Your task to perform on an android device: Go to wifi settings Image 0: 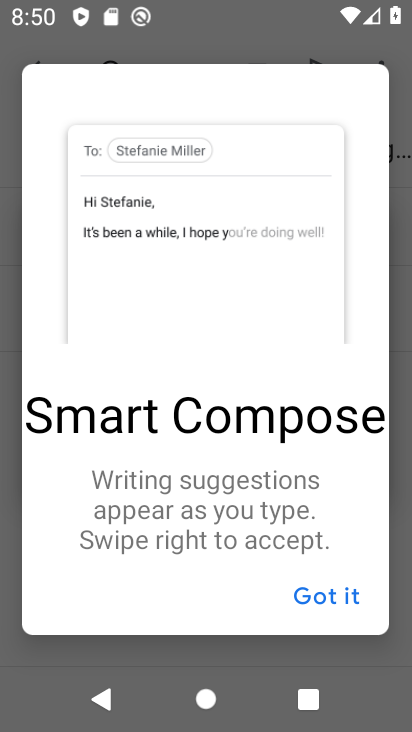
Step 0: press home button
Your task to perform on an android device: Go to wifi settings Image 1: 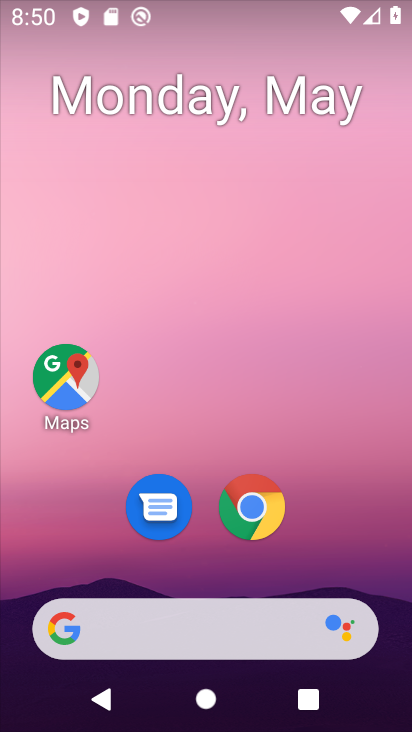
Step 1: drag from (225, 575) to (250, 4)
Your task to perform on an android device: Go to wifi settings Image 2: 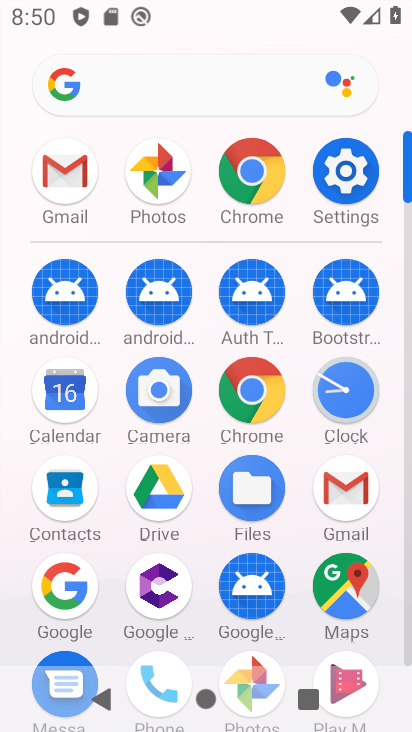
Step 2: click (355, 196)
Your task to perform on an android device: Go to wifi settings Image 3: 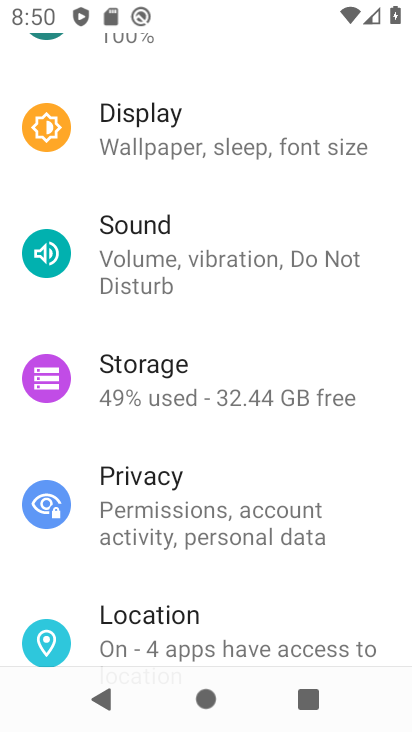
Step 3: drag from (243, 362) to (212, 702)
Your task to perform on an android device: Go to wifi settings Image 4: 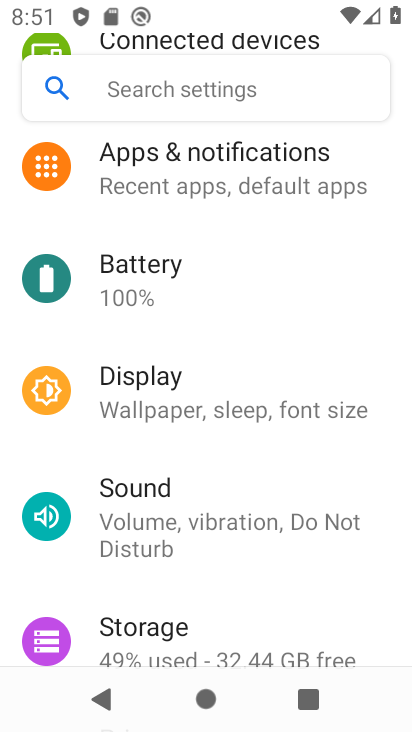
Step 4: drag from (297, 199) to (264, 707)
Your task to perform on an android device: Go to wifi settings Image 5: 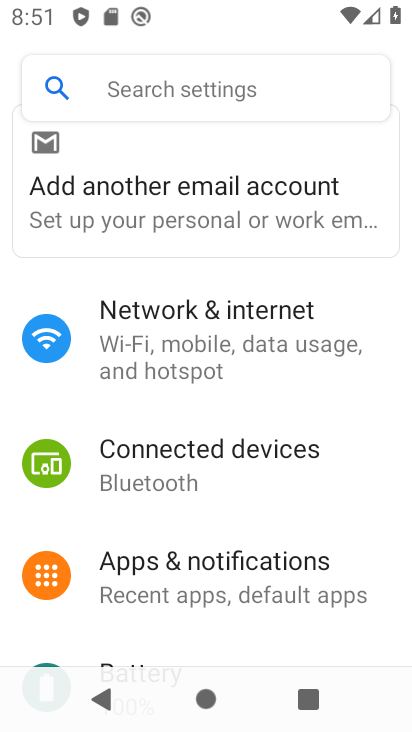
Step 5: click (235, 331)
Your task to perform on an android device: Go to wifi settings Image 6: 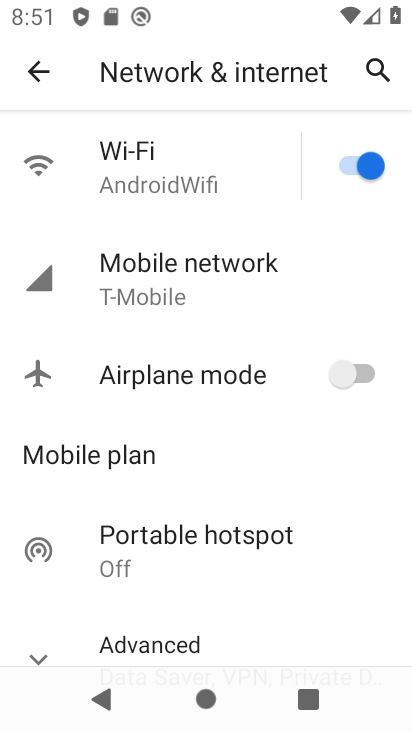
Step 6: click (183, 181)
Your task to perform on an android device: Go to wifi settings Image 7: 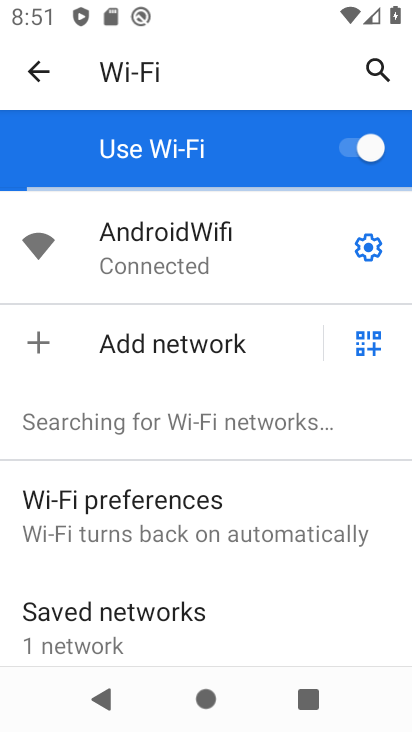
Step 7: task complete